Your task to perform on an android device: turn notification dots off Image 0: 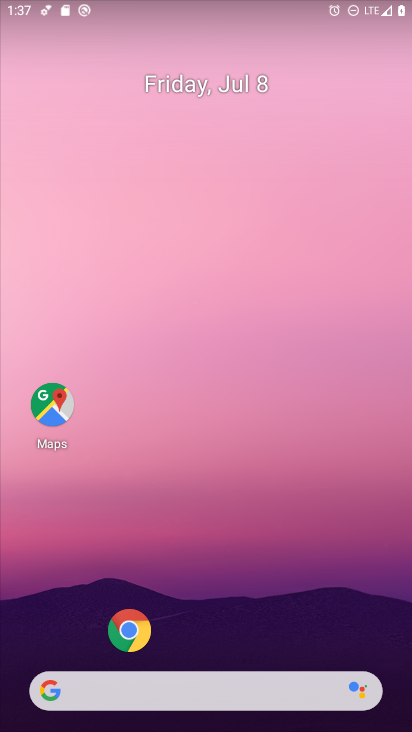
Step 0: drag from (274, 667) to (301, 13)
Your task to perform on an android device: turn notification dots off Image 1: 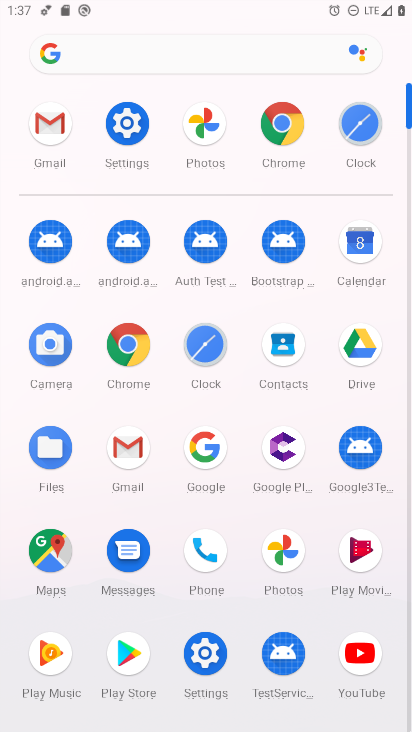
Step 1: click (138, 128)
Your task to perform on an android device: turn notification dots off Image 2: 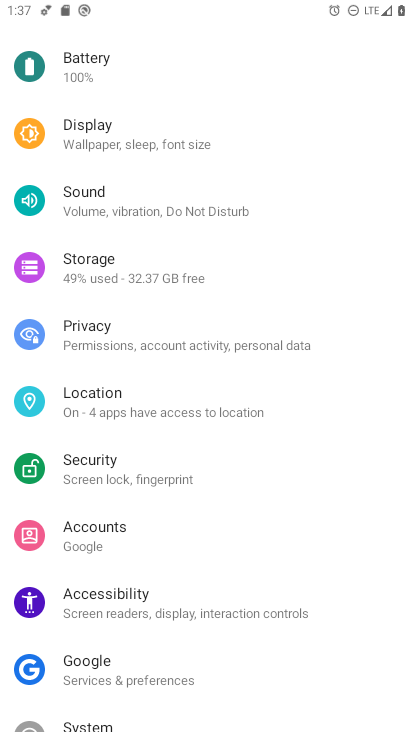
Step 2: drag from (152, 284) to (167, 588)
Your task to perform on an android device: turn notification dots off Image 3: 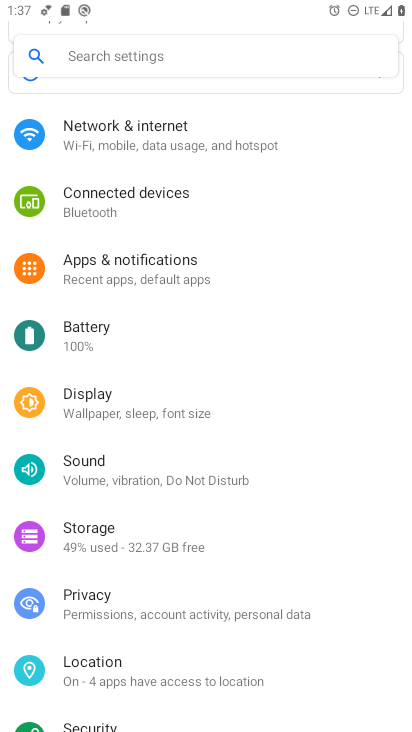
Step 3: click (181, 272)
Your task to perform on an android device: turn notification dots off Image 4: 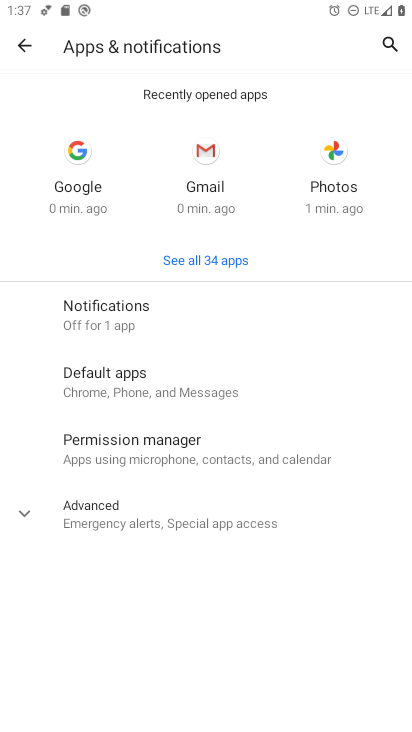
Step 4: click (171, 315)
Your task to perform on an android device: turn notification dots off Image 5: 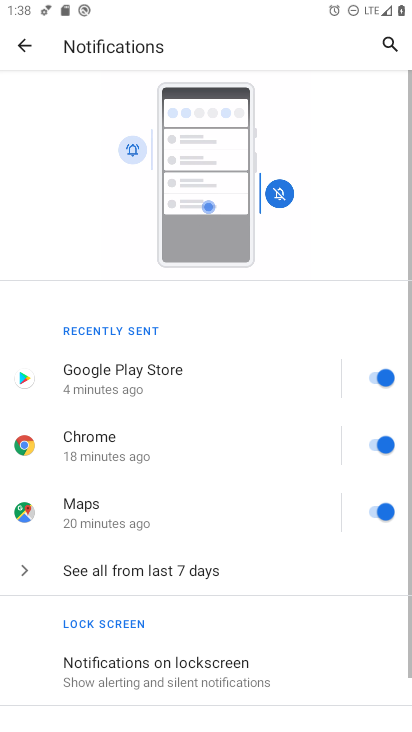
Step 5: drag from (252, 655) to (320, 229)
Your task to perform on an android device: turn notification dots off Image 6: 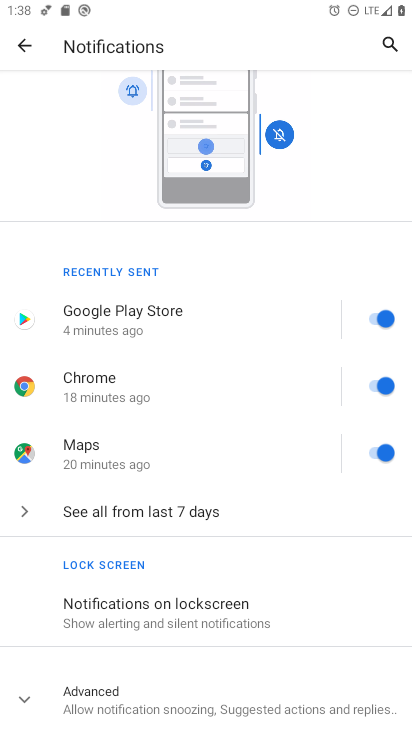
Step 6: click (228, 703)
Your task to perform on an android device: turn notification dots off Image 7: 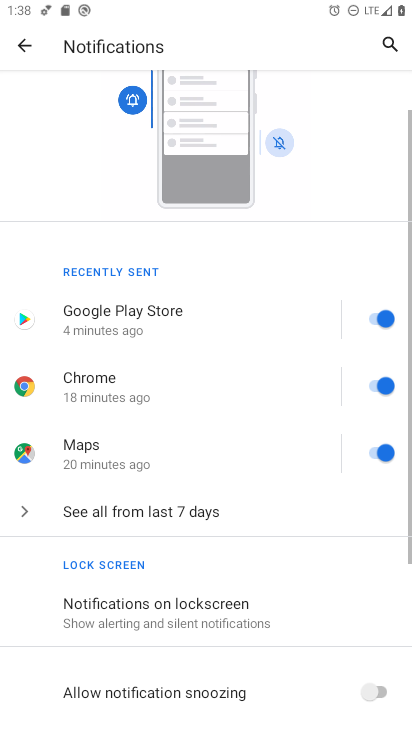
Step 7: task complete